Your task to perform on an android device: move a message to another label in the gmail app Image 0: 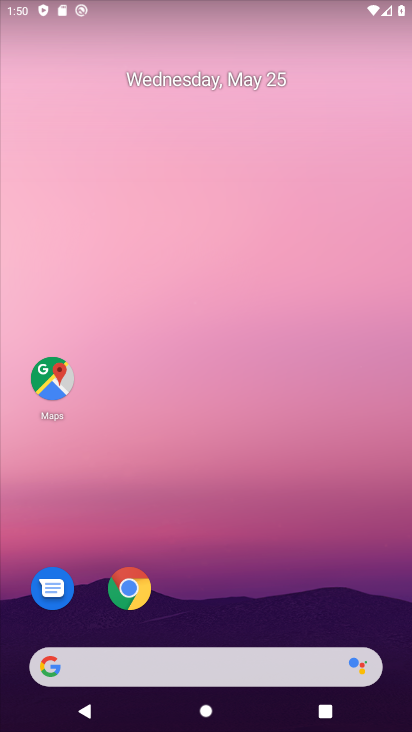
Step 0: drag from (200, 320) to (170, 8)
Your task to perform on an android device: move a message to another label in the gmail app Image 1: 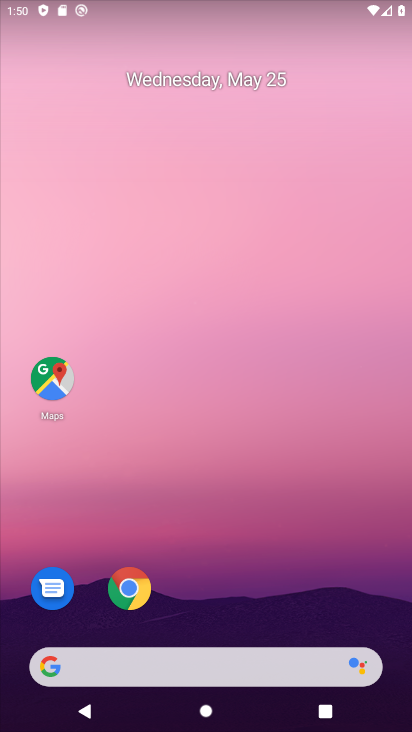
Step 1: drag from (321, 552) to (200, 6)
Your task to perform on an android device: move a message to another label in the gmail app Image 2: 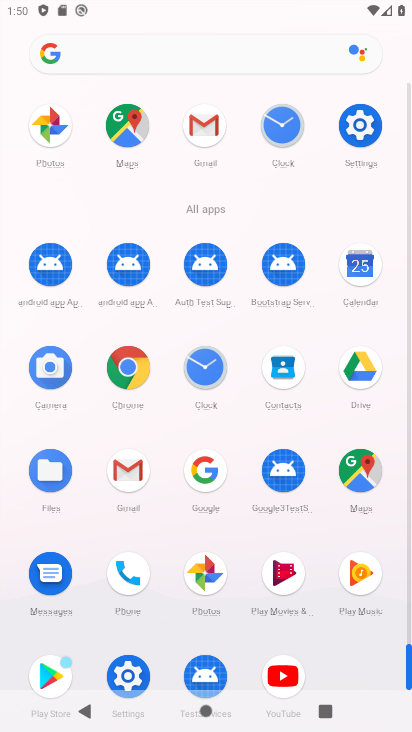
Step 2: drag from (3, 480) to (1, 192)
Your task to perform on an android device: move a message to another label in the gmail app Image 3: 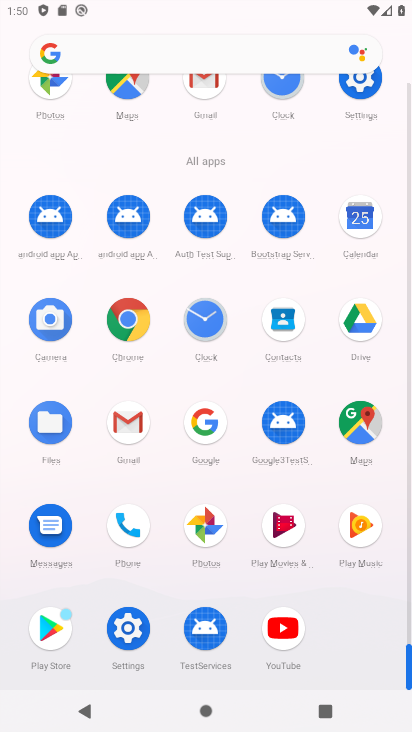
Step 3: click (124, 418)
Your task to perform on an android device: move a message to another label in the gmail app Image 4: 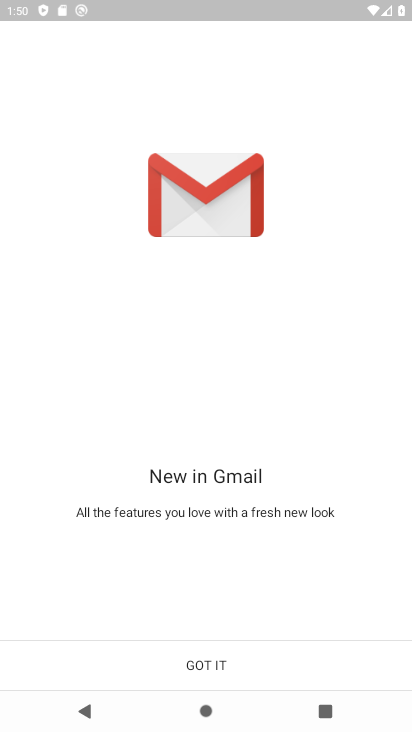
Step 4: click (195, 671)
Your task to perform on an android device: move a message to another label in the gmail app Image 5: 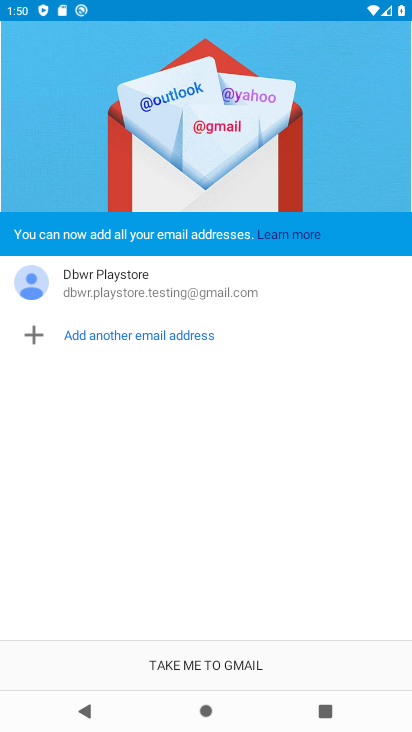
Step 5: click (209, 665)
Your task to perform on an android device: move a message to another label in the gmail app Image 6: 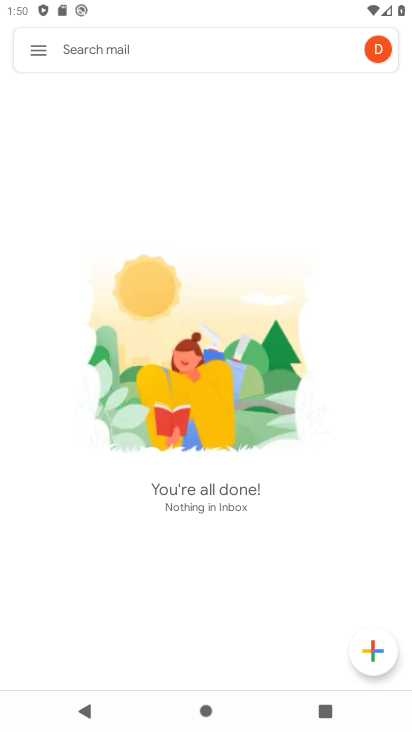
Step 6: click (51, 47)
Your task to perform on an android device: move a message to another label in the gmail app Image 7: 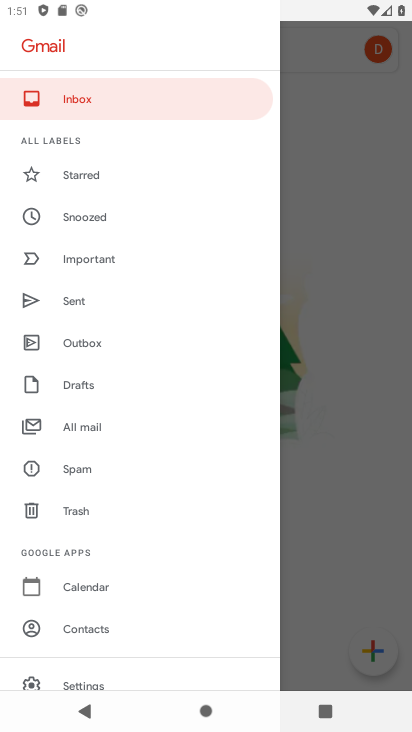
Step 7: click (104, 416)
Your task to perform on an android device: move a message to another label in the gmail app Image 8: 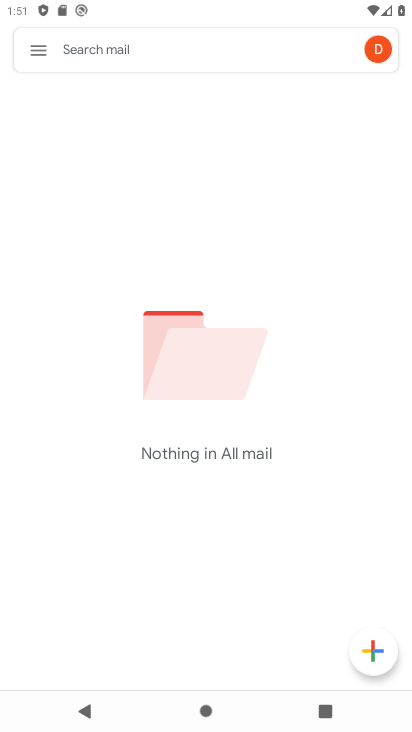
Step 8: click (46, 44)
Your task to perform on an android device: move a message to another label in the gmail app Image 9: 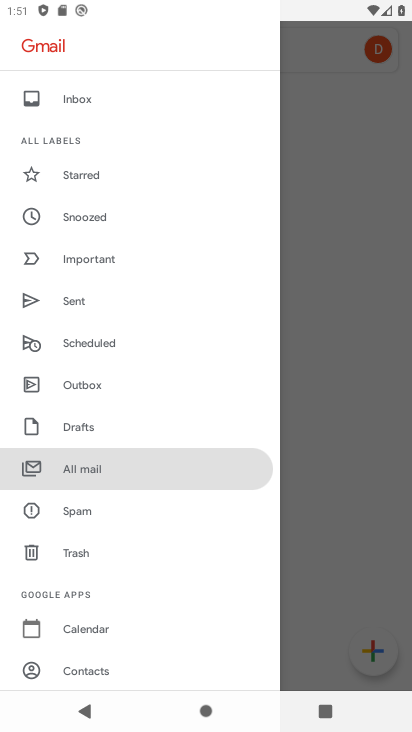
Step 9: click (103, 177)
Your task to perform on an android device: move a message to another label in the gmail app Image 10: 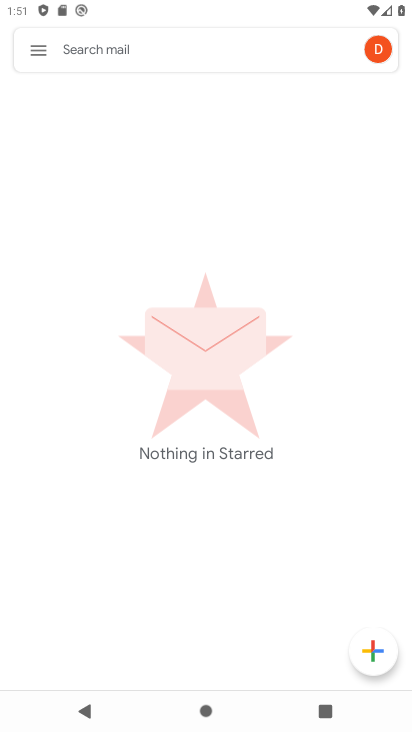
Step 10: click (38, 59)
Your task to perform on an android device: move a message to another label in the gmail app Image 11: 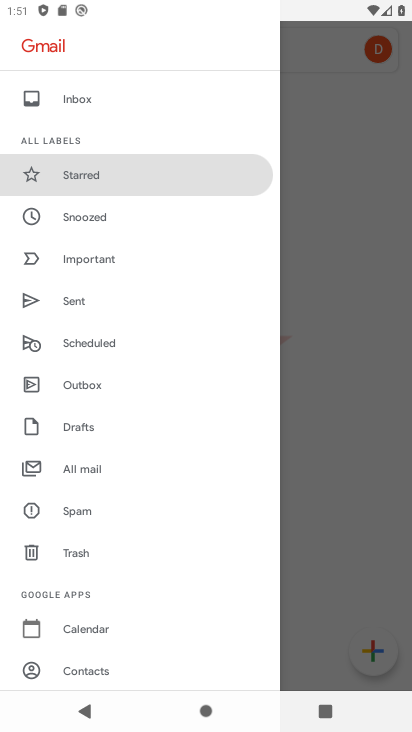
Step 11: click (101, 376)
Your task to perform on an android device: move a message to another label in the gmail app Image 12: 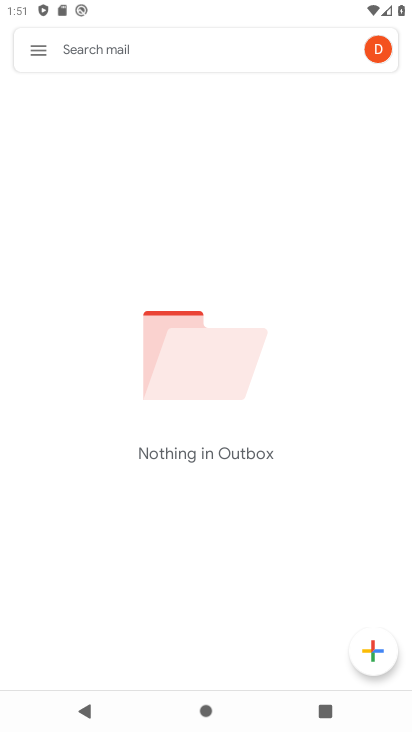
Step 12: task complete